Your task to perform on an android device: toggle javascript in the chrome app Image 0: 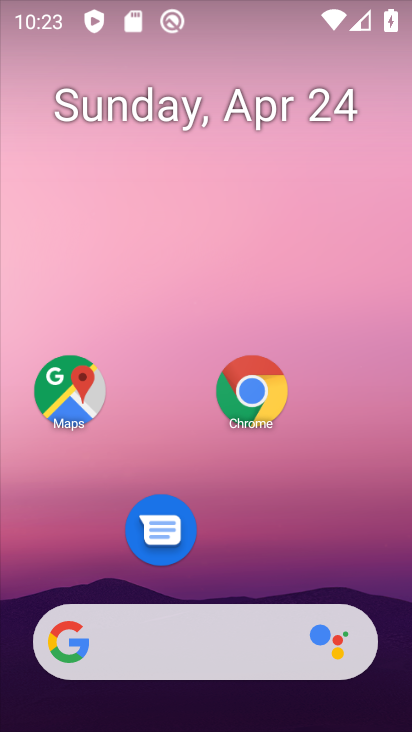
Step 0: click (248, 391)
Your task to perform on an android device: toggle javascript in the chrome app Image 1: 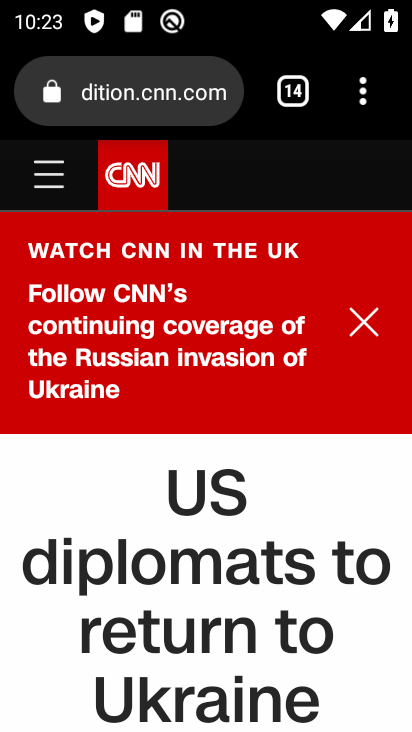
Step 1: click (357, 86)
Your task to perform on an android device: toggle javascript in the chrome app Image 2: 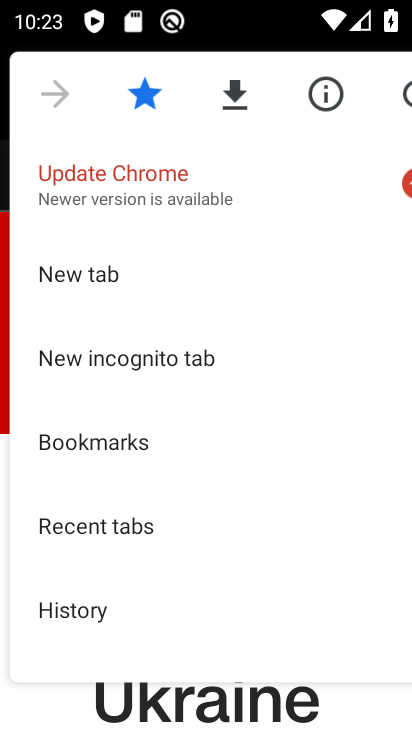
Step 2: drag from (132, 597) to (146, 44)
Your task to perform on an android device: toggle javascript in the chrome app Image 3: 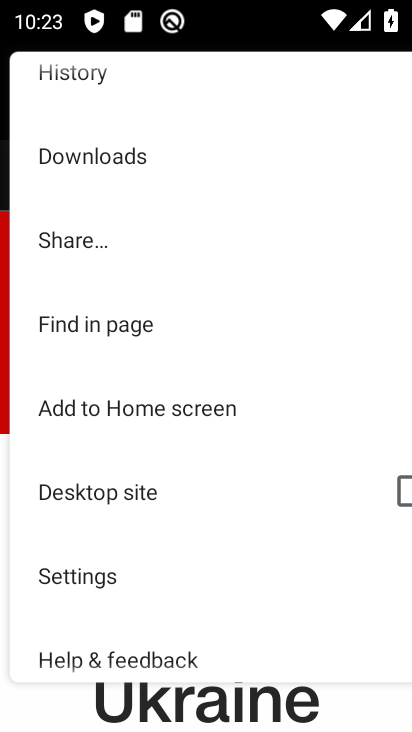
Step 3: drag from (137, 597) to (158, 135)
Your task to perform on an android device: toggle javascript in the chrome app Image 4: 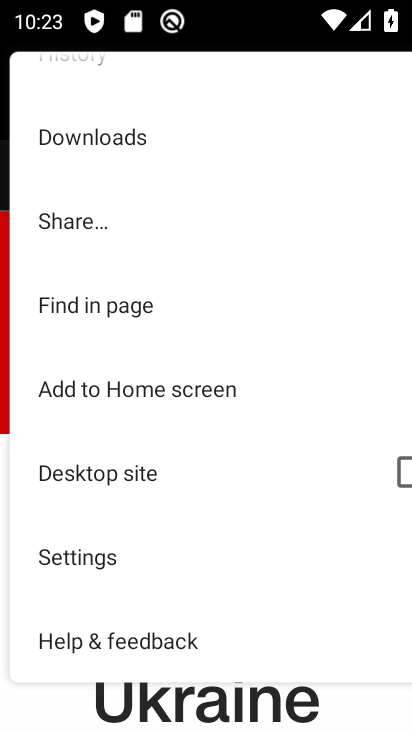
Step 4: click (106, 558)
Your task to perform on an android device: toggle javascript in the chrome app Image 5: 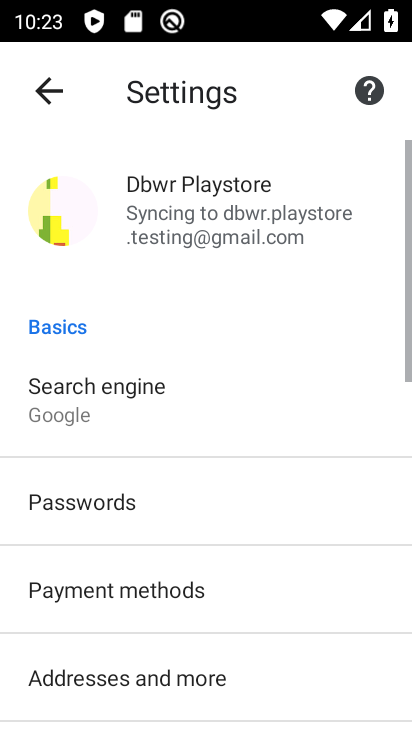
Step 5: drag from (114, 535) to (195, 121)
Your task to perform on an android device: toggle javascript in the chrome app Image 6: 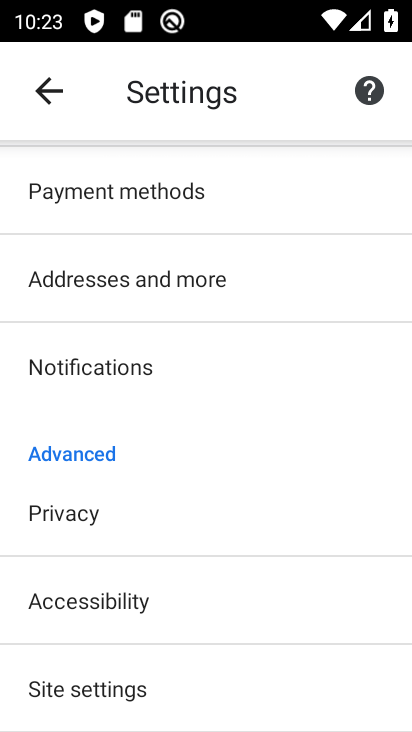
Step 6: drag from (69, 636) to (119, 15)
Your task to perform on an android device: toggle javascript in the chrome app Image 7: 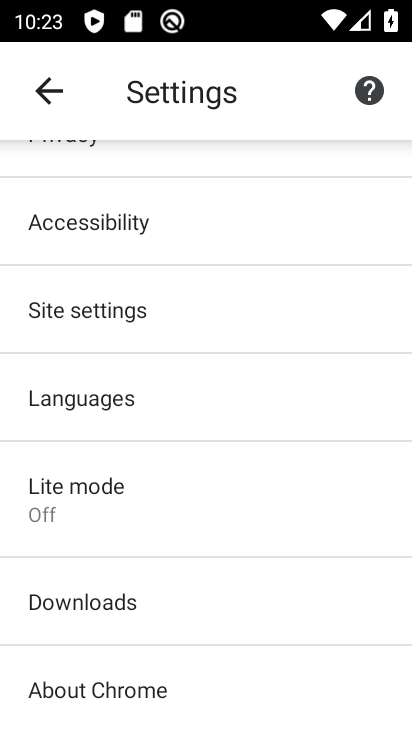
Step 7: click (244, 303)
Your task to perform on an android device: toggle javascript in the chrome app Image 8: 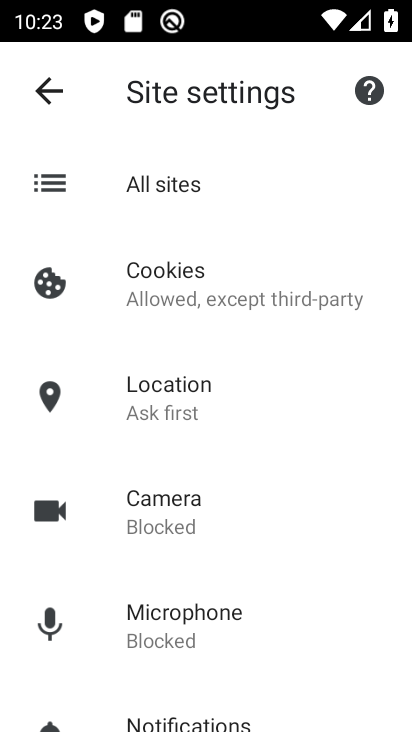
Step 8: drag from (159, 693) to (199, 285)
Your task to perform on an android device: toggle javascript in the chrome app Image 9: 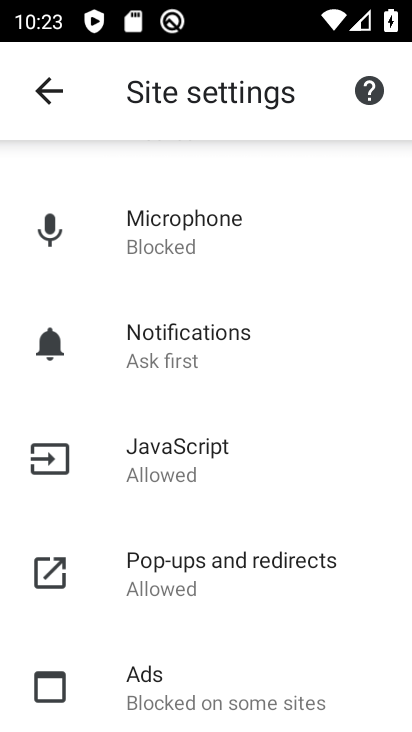
Step 9: drag from (153, 615) to (179, 106)
Your task to perform on an android device: toggle javascript in the chrome app Image 10: 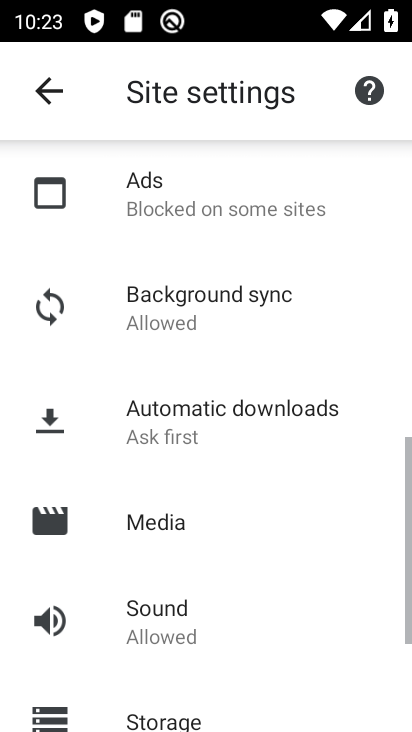
Step 10: drag from (125, 569) to (187, 266)
Your task to perform on an android device: toggle javascript in the chrome app Image 11: 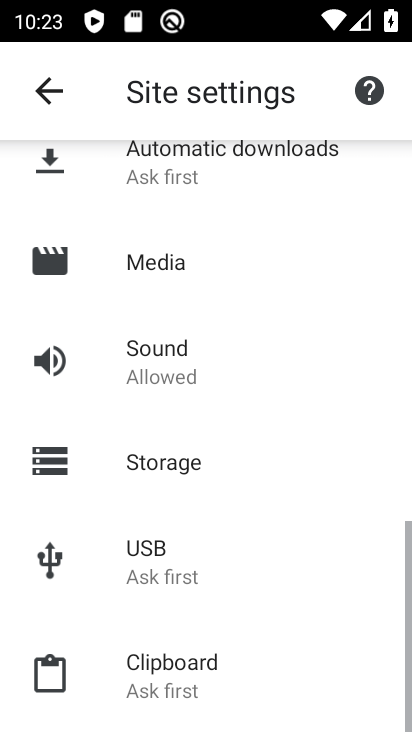
Step 11: drag from (138, 673) to (102, 229)
Your task to perform on an android device: toggle javascript in the chrome app Image 12: 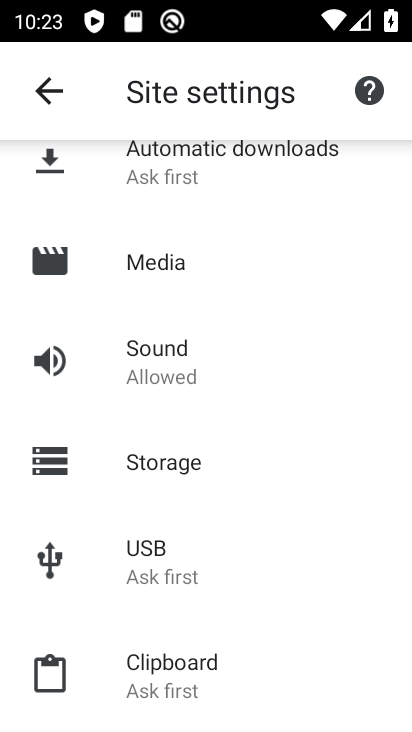
Step 12: drag from (77, 126) to (78, 584)
Your task to perform on an android device: toggle javascript in the chrome app Image 13: 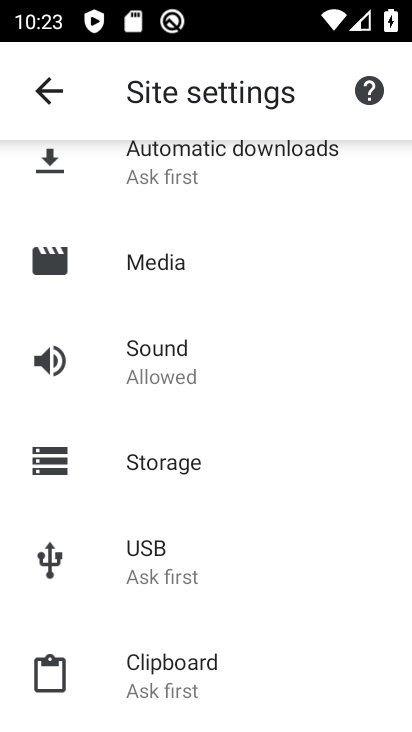
Step 13: drag from (153, 193) to (116, 574)
Your task to perform on an android device: toggle javascript in the chrome app Image 14: 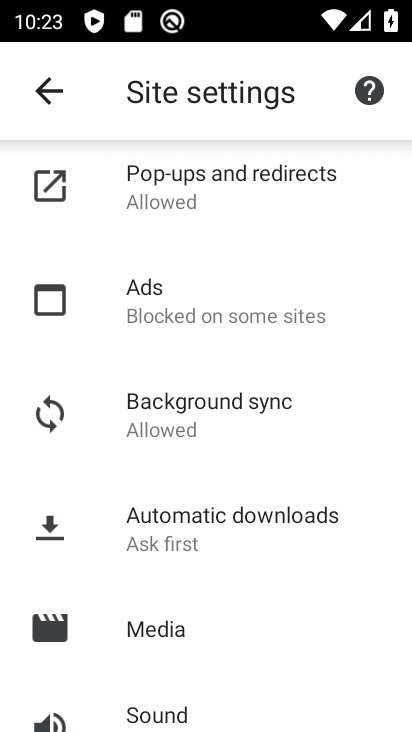
Step 14: drag from (165, 280) to (169, 639)
Your task to perform on an android device: toggle javascript in the chrome app Image 15: 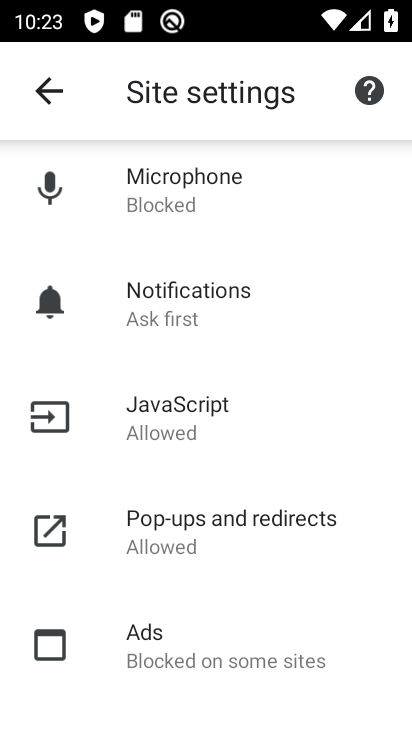
Step 15: click (158, 440)
Your task to perform on an android device: toggle javascript in the chrome app Image 16: 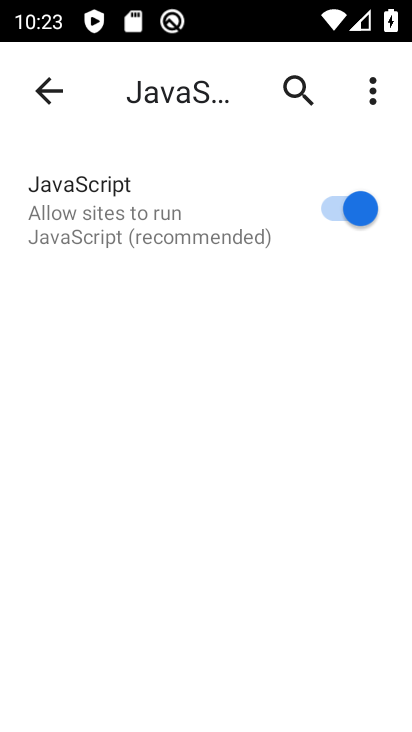
Step 16: click (346, 199)
Your task to perform on an android device: toggle javascript in the chrome app Image 17: 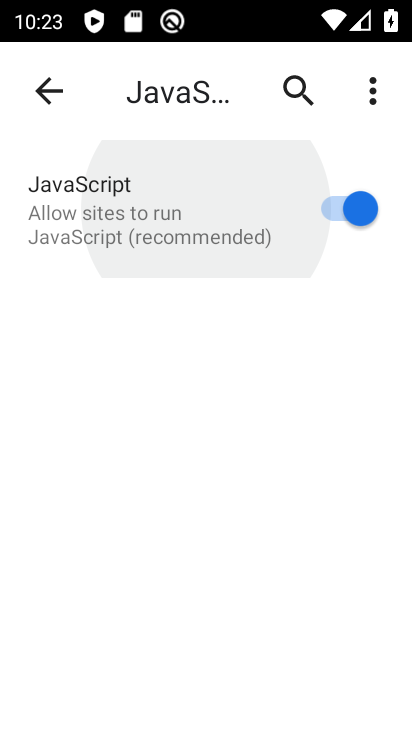
Step 17: click (346, 199)
Your task to perform on an android device: toggle javascript in the chrome app Image 18: 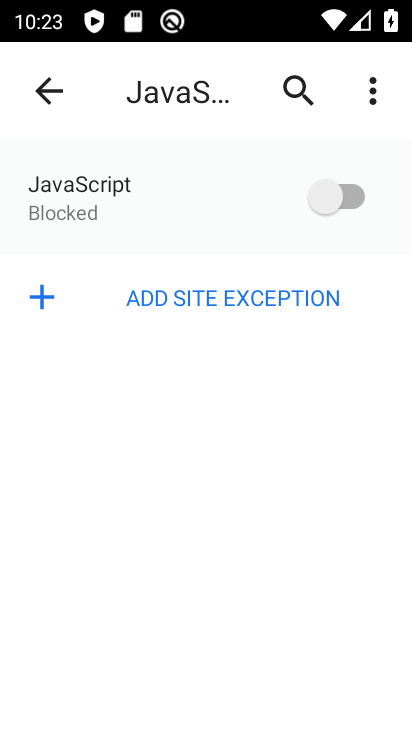
Step 18: click (346, 199)
Your task to perform on an android device: toggle javascript in the chrome app Image 19: 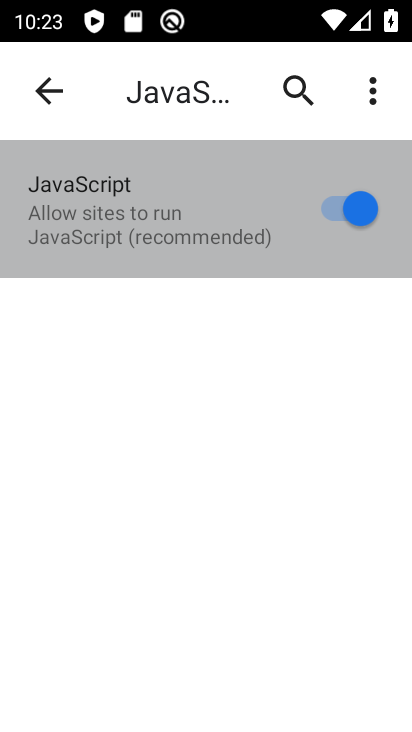
Step 19: click (346, 199)
Your task to perform on an android device: toggle javascript in the chrome app Image 20: 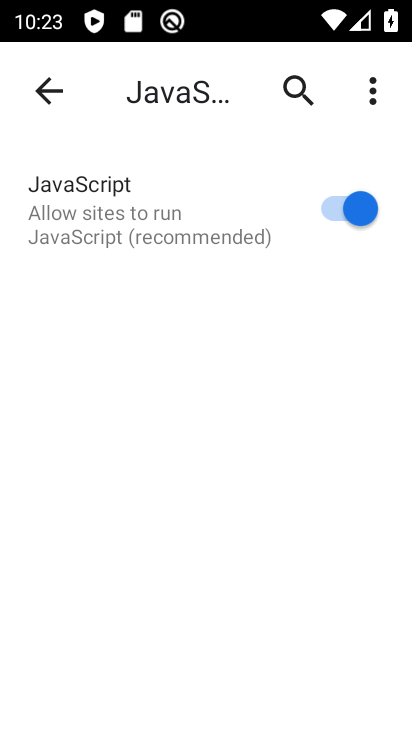
Step 20: task complete